Your task to perform on an android device: Add "bose quietcomfort 35" to the cart on bestbuy, then select checkout. Image 0: 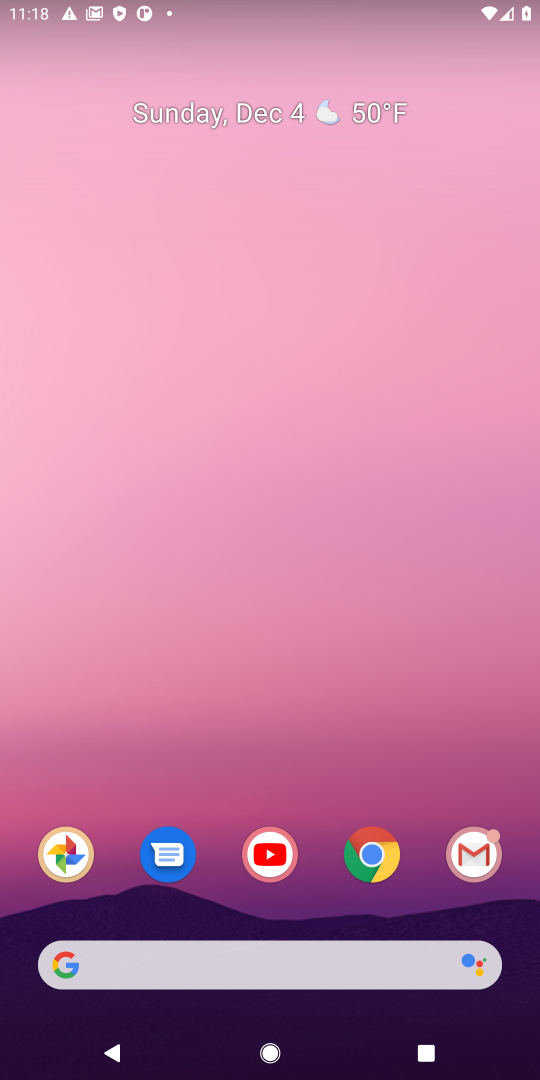
Step 0: click (337, 959)
Your task to perform on an android device: Add "bose quietcomfort 35" to the cart on bestbuy, then select checkout. Image 1: 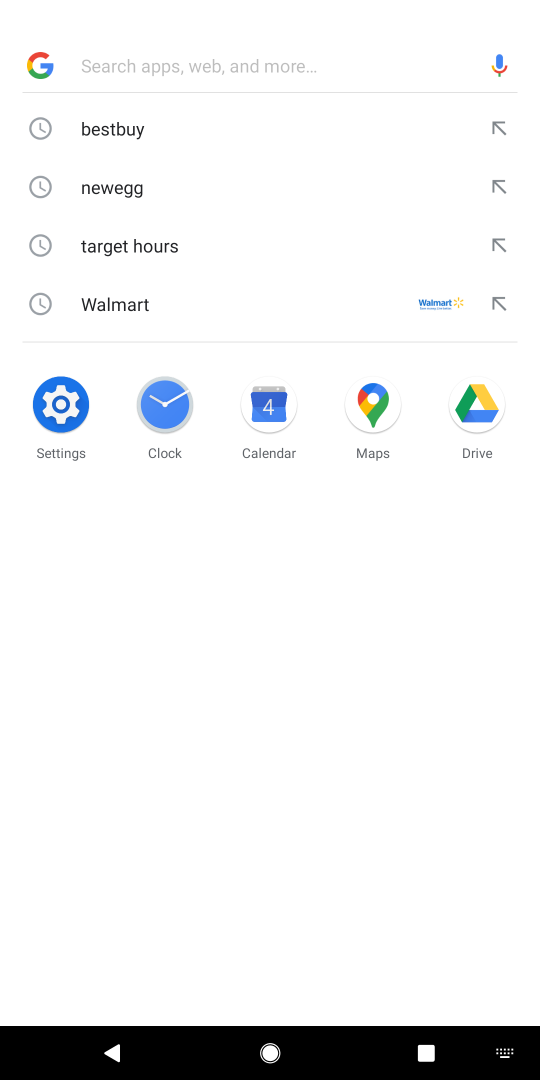
Step 1: type "bestbuy"
Your task to perform on an android device: Add "bose quietcomfort 35" to the cart on bestbuy, then select checkout. Image 2: 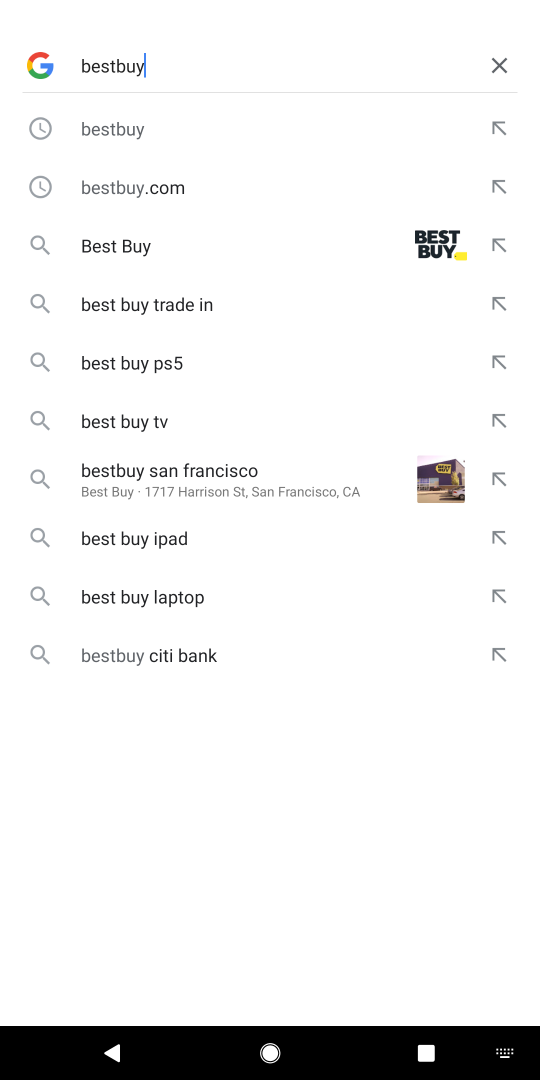
Step 2: click (171, 255)
Your task to perform on an android device: Add "bose quietcomfort 35" to the cart on bestbuy, then select checkout. Image 3: 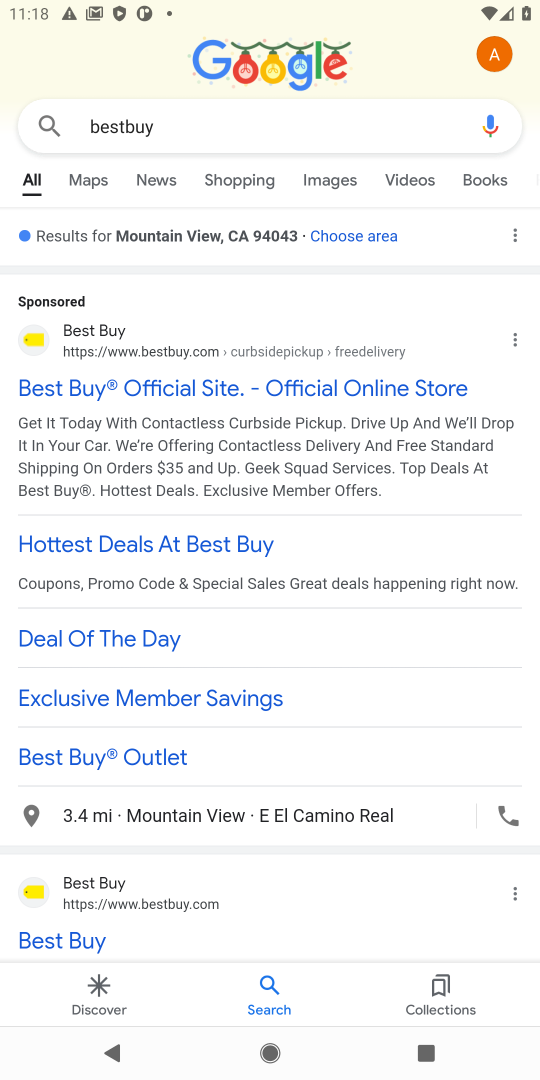
Step 3: click (111, 386)
Your task to perform on an android device: Add "bose quietcomfort 35" to the cart on bestbuy, then select checkout. Image 4: 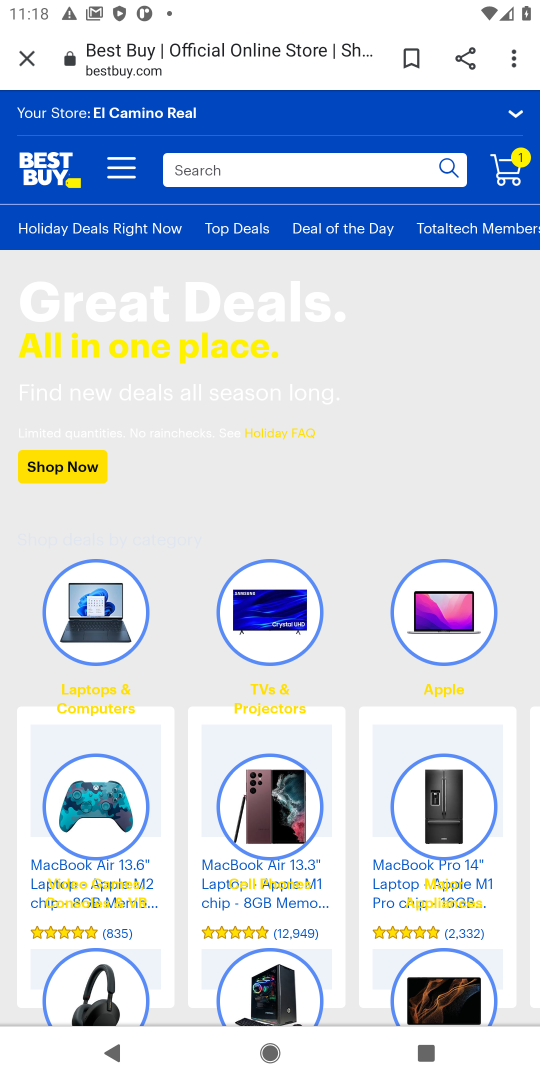
Step 4: click (282, 155)
Your task to perform on an android device: Add "bose quietcomfort 35" to the cart on bestbuy, then select checkout. Image 5: 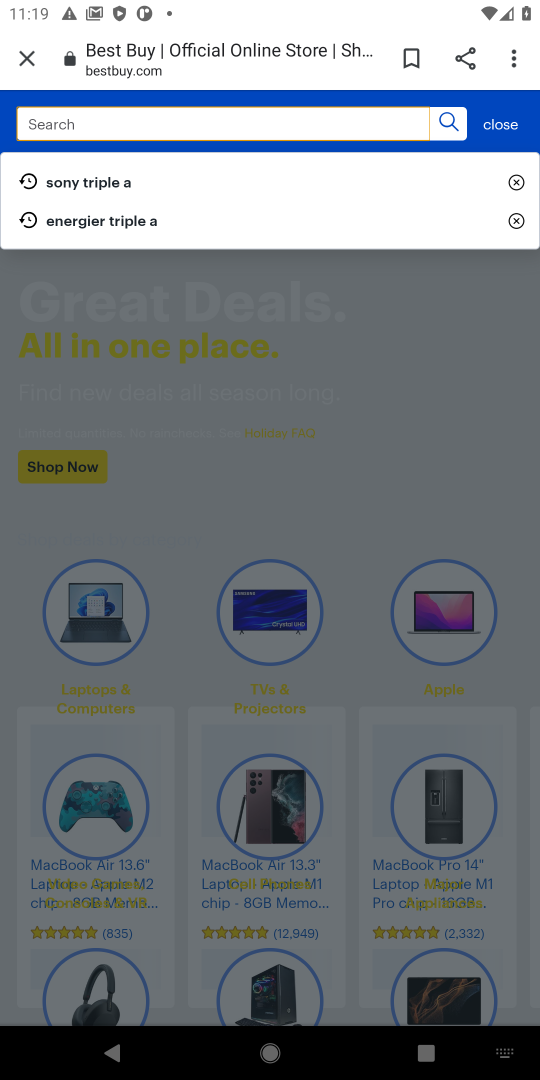
Step 5: type "bode quietfort"
Your task to perform on an android device: Add "bose quietcomfort 35" to the cart on bestbuy, then select checkout. Image 6: 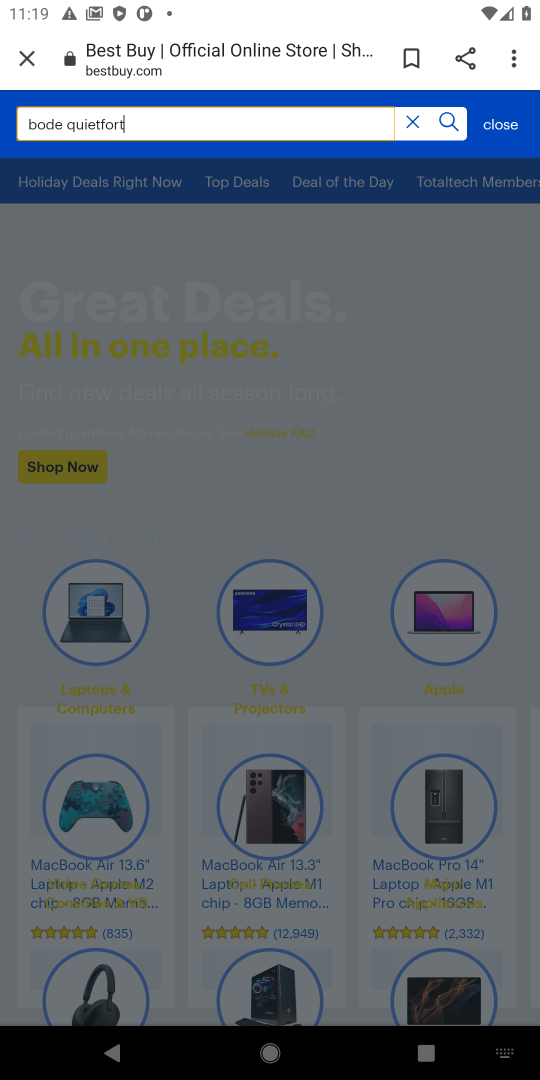
Step 6: click (449, 114)
Your task to perform on an android device: Add "bose quietcomfort 35" to the cart on bestbuy, then select checkout. Image 7: 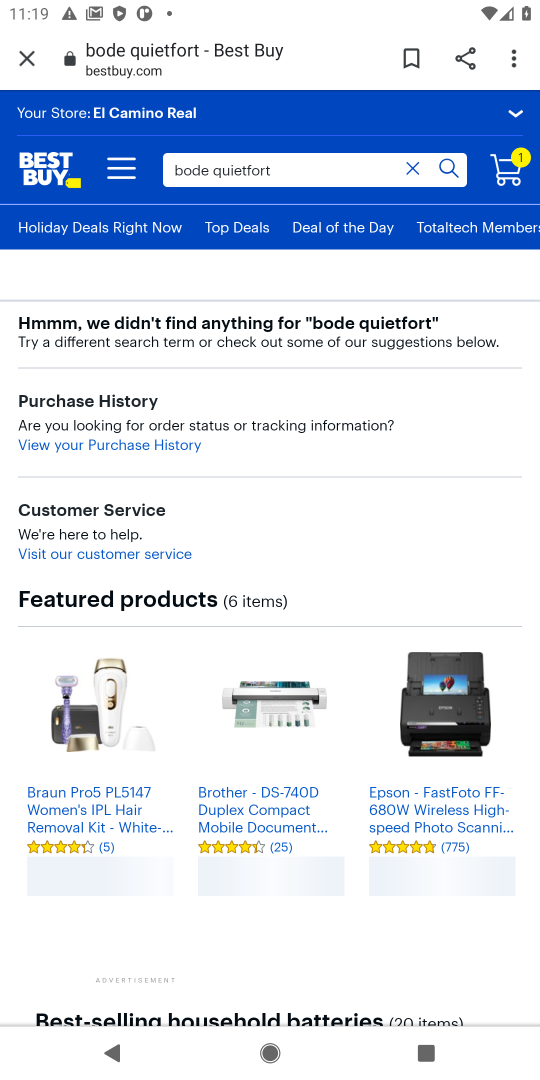
Step 7: task complete